Your task to perform on an android device: change the clock display to analog Image 0: 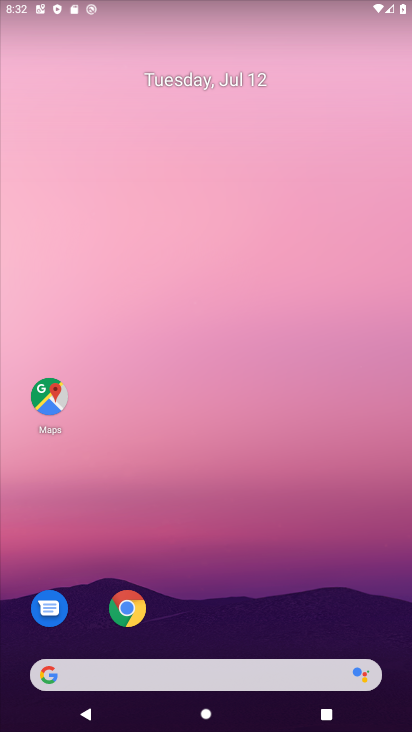
Step 0: drag from (245, 326) to (199, 33)
Your task to perform on an android device: change the clock display to analog Image 1: 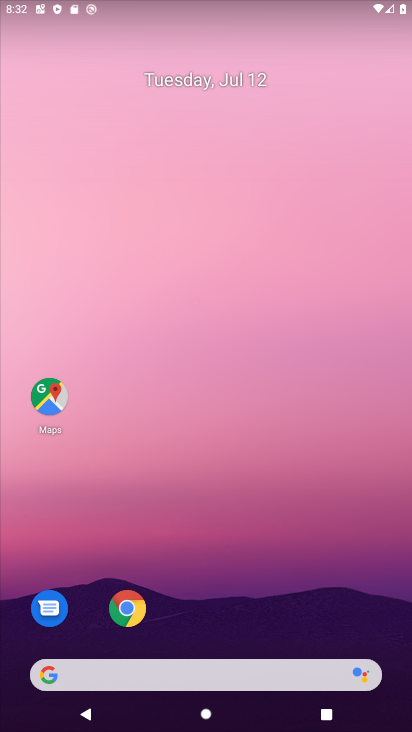
Step 1: drag from (182, 629) to (232, 27)
Your task to perform on an android device: change the clock display to analog Image 2: 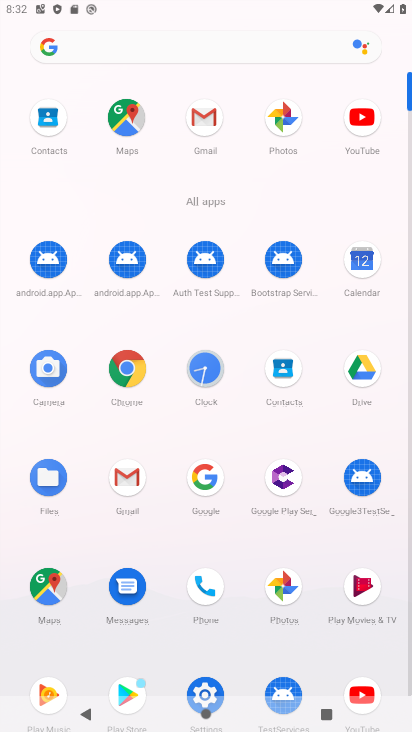
Step 2: click (207, 367)
Your task to perform on an android device: change the clock display to analog Image 3: 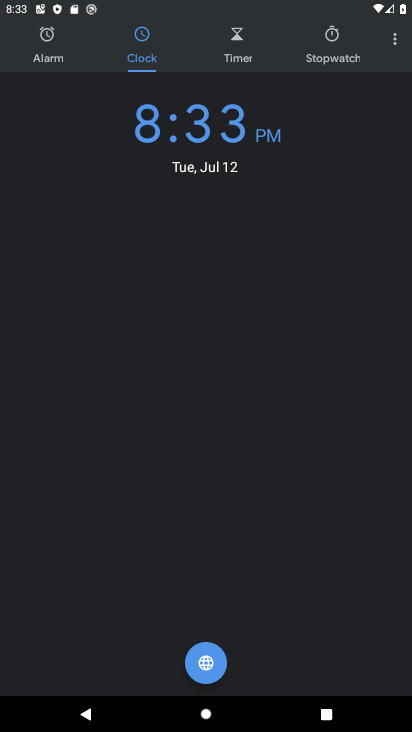
Step 3: click (388, 33)
Your task to perform on an android device: change the clock display to analog Image 4: 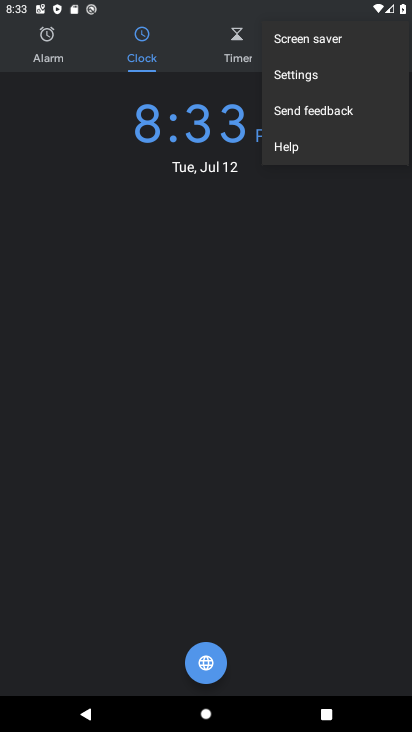
Step 4: click (332, 68)
Your task to perform on an android device: change the clock display to analog Image 5: 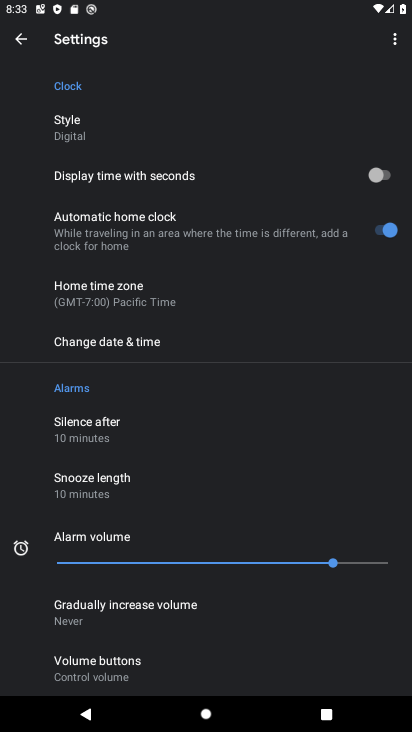
Step 5: click (113, 125)
Your task to perform on an android device: change the clock display to analog Image 6: 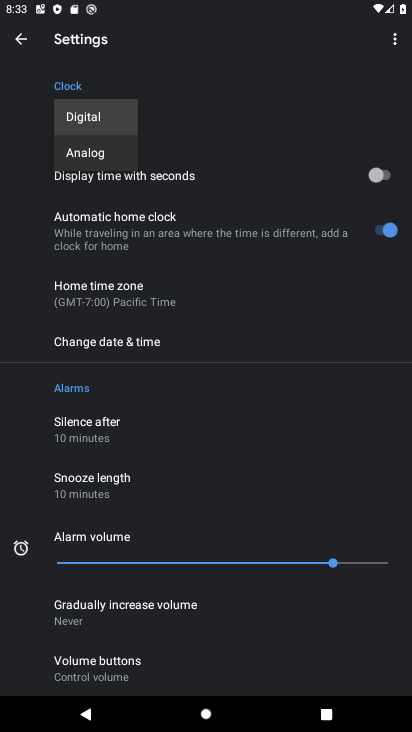
Step 6: click (101, 150)
Your task to perform on an android device: change the clock display to analog Image 7: 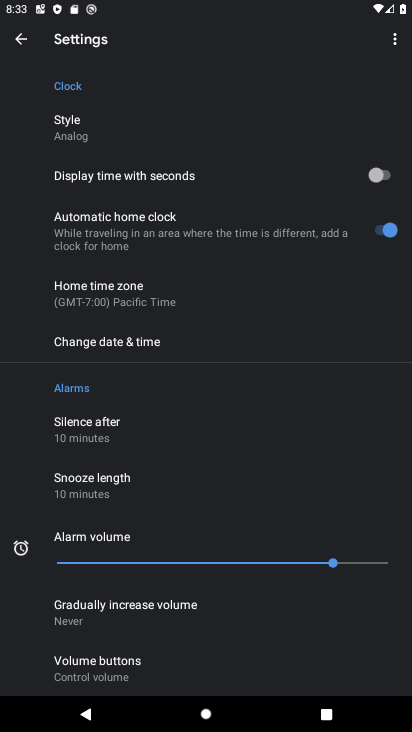
Step 7: task complete